Your task to perform on an android device: set the stopwatch Image 0: 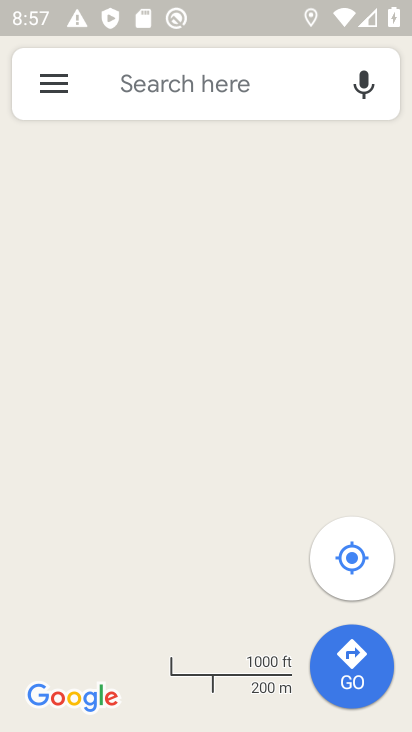
Step 0: press home button
Your task to perform on an android device: set the stopwatch Image 1: 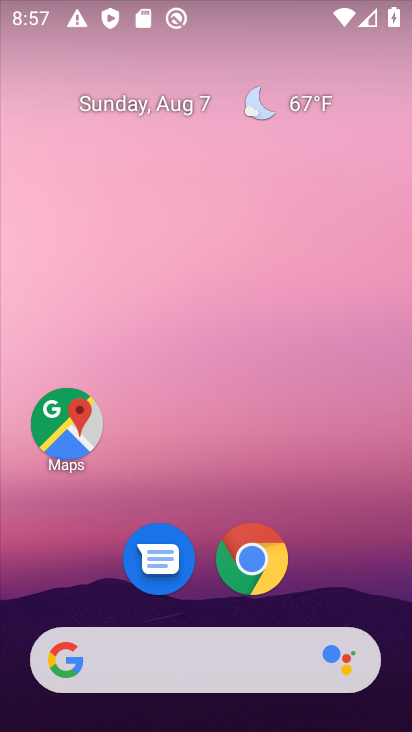
Step 1: drag from (266, 642) to (277, 92)
Your task to perform on an android device: set the stopwatch Image 2: 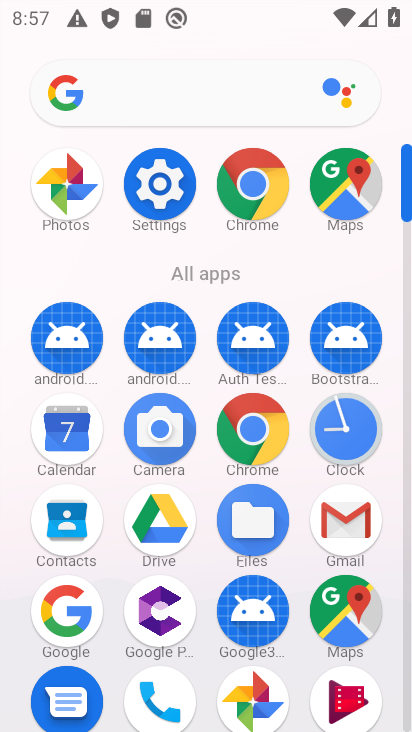
Step 2: click (357, 427)
Your task to perform on an android device: set the stopwatch Image 3: 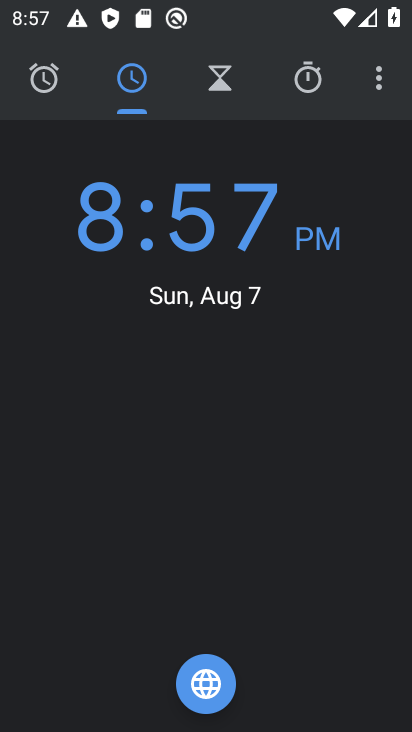
Step 3: click (316, 89)
Your task to perform on an android device: set the stopwatch Image 4: 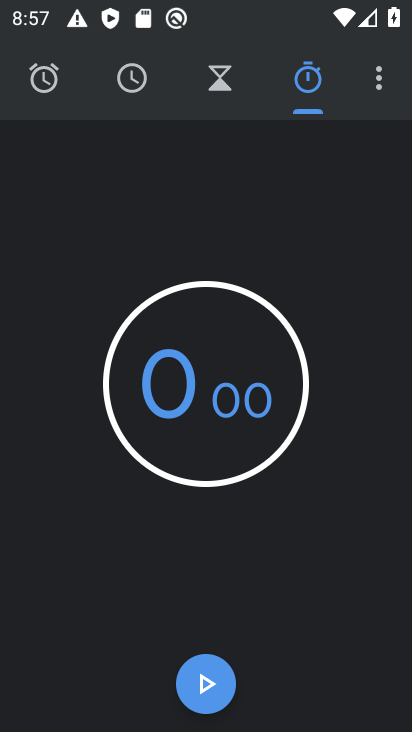
Step 4: click (213, 690)
Your task to perform on an android device: set the stopwatch Image 5: 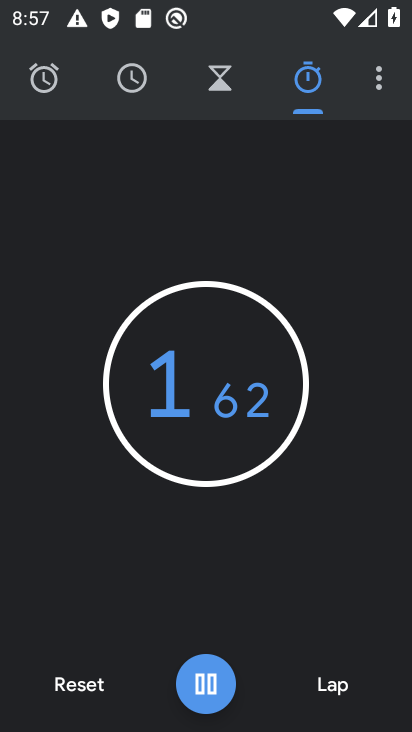
Step 5: task complete